Your task to perform on an android device: visit the assistant section in the google photos Image 0: 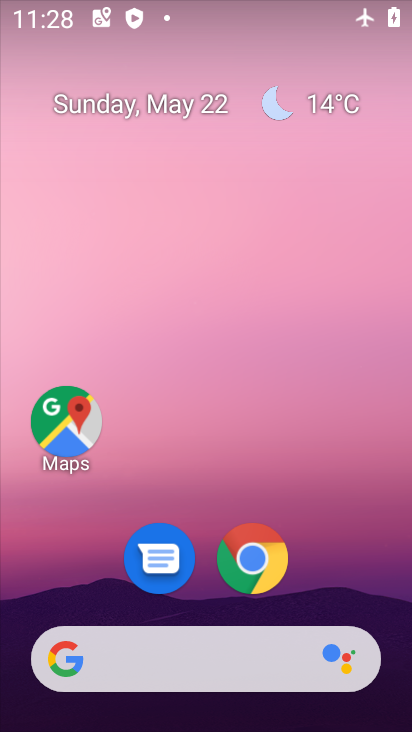
Step 0: drag from (319, 606) to (392, 0)
Your task to perform on an android device: visit the assistant section in the google photos Image 1: 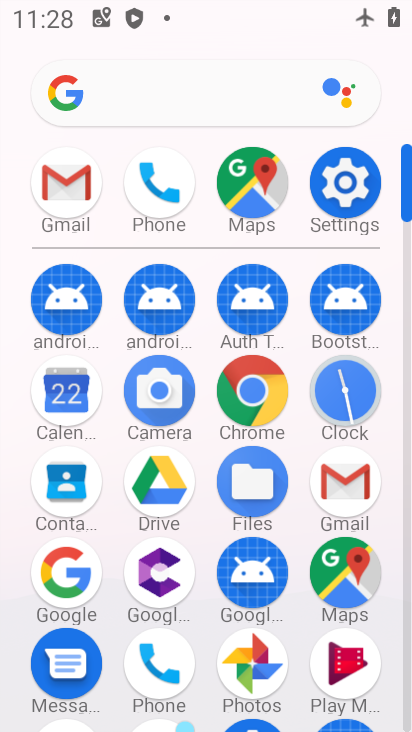
Step 1: click (256, 665)
Your task to perform on an android device: visit the assistant section in the google photos Image 2: 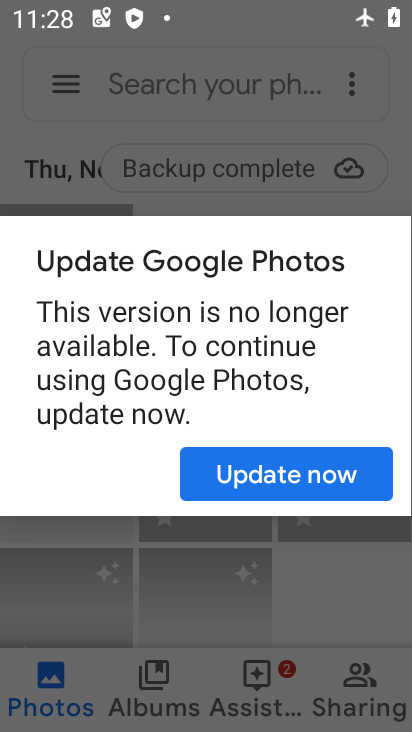
Step 2: click (313, 480)
Your task to perform on an android device: visit the assistant section in the google photos Image 3: 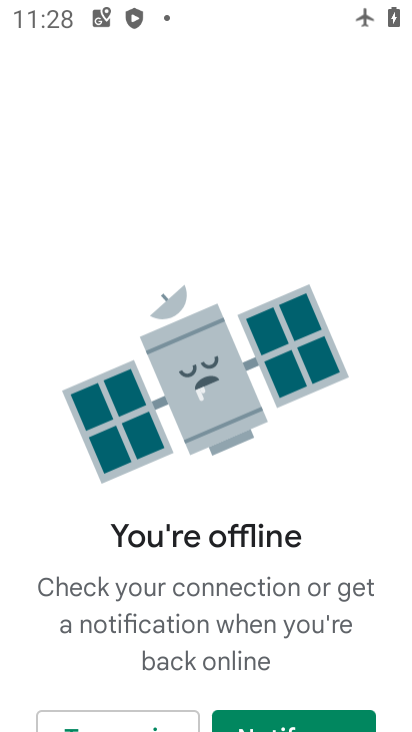
Step 3: drag from (319, 434) to (324, 240)
Your task to perform on an android device: visit the assistant section in the google photos Image 4: 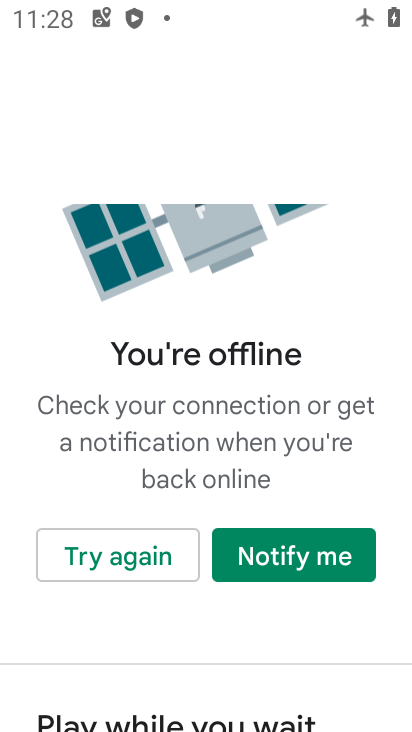
Step 4: press back button
Your task to perform on an android device: visit the assistant section in the google photos Image 5: 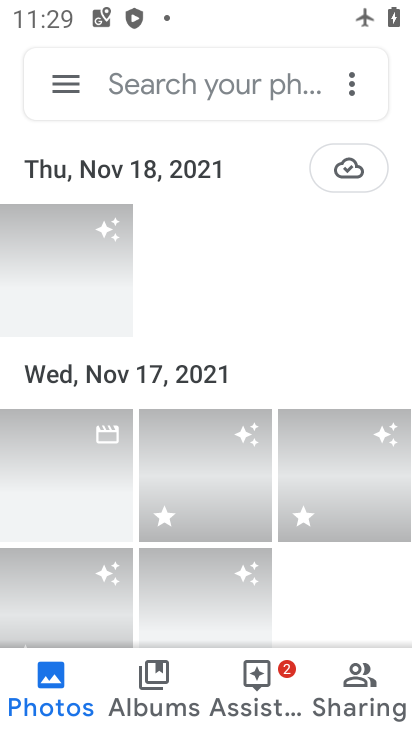
Step 5: click (248, 701)
Your task to perform on an android device: visit the assistant section in the google photos Image 6: 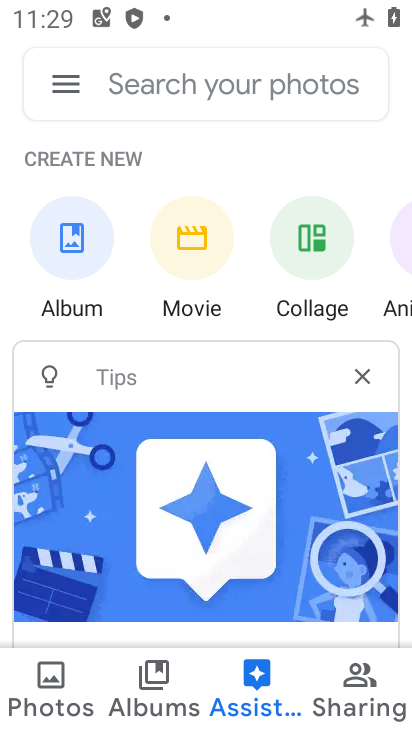
Step 6: task complete